Your task to perform on an android device: Go to wifi settings Image 0: 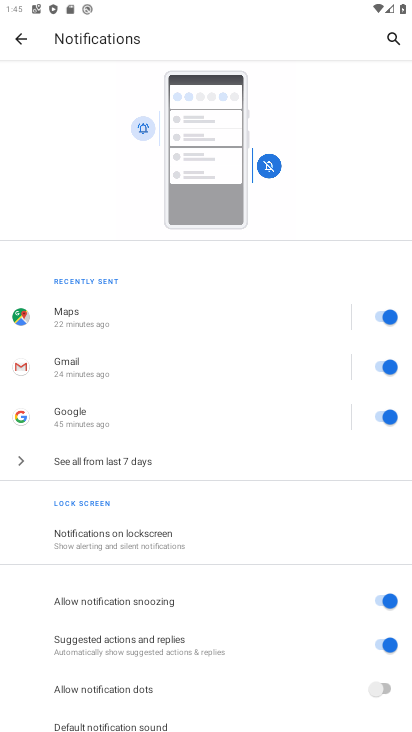
Step 0: press home button
Your task to perform on an android device: Go to wifi settings Image 1: 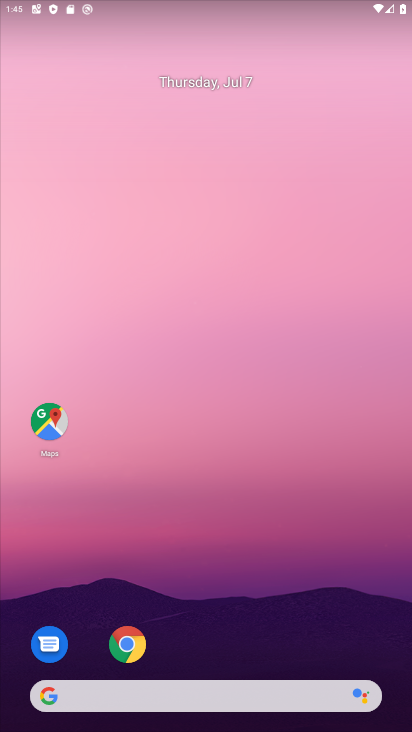
Step 1: drag from (251, 691) to (223, 279)
Your task to perform on an android device: Go to wifi settings Image 2: 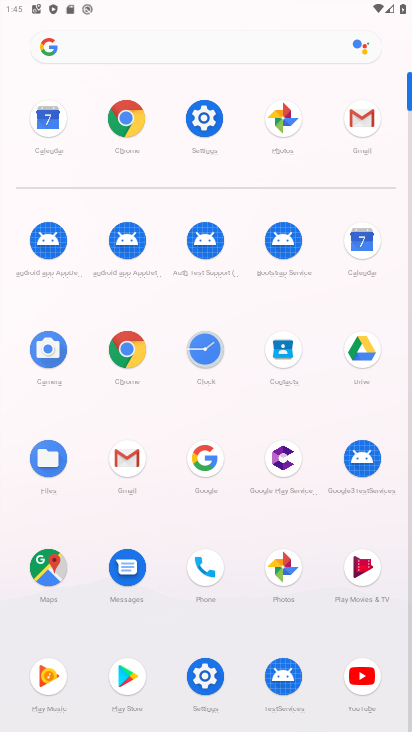
Step 2: click (202, 106)
Your task to perform on an android device: Go to wifi settings Image 3: 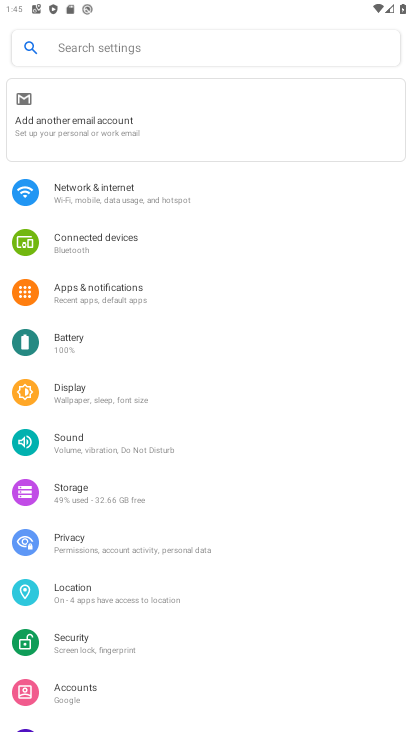
Step 3: click (164, 199)
Your task to perform on an android device: Go to wifi settings Image 4: 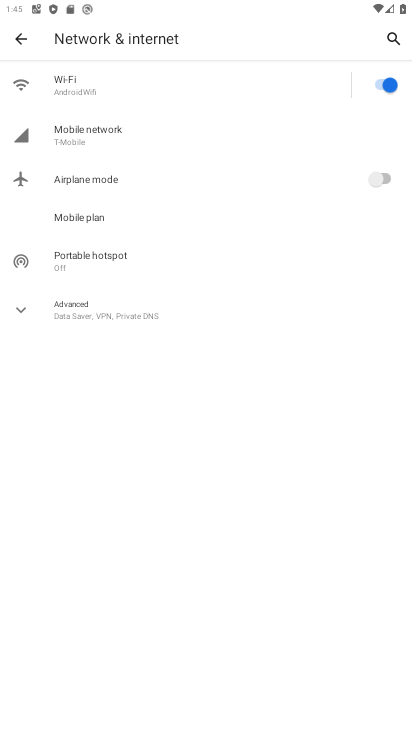
Step 4: click (95, 82)
Your task to perform on an android device: Go to wifi settings Image 5: 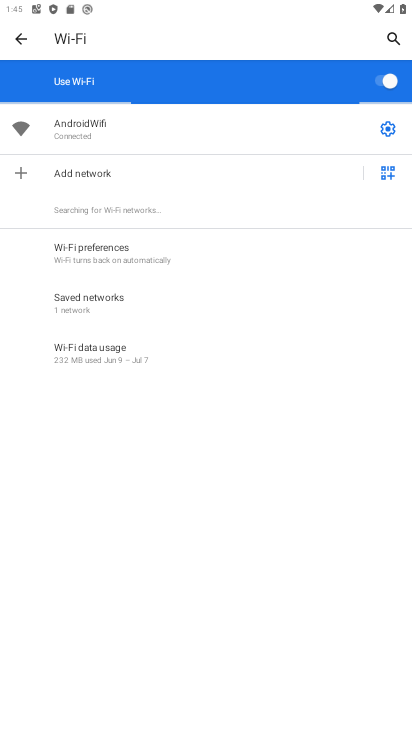
Step 5: task complete